Your task to perform on an android device: toggle priority inbox in the gmail app Image 0: 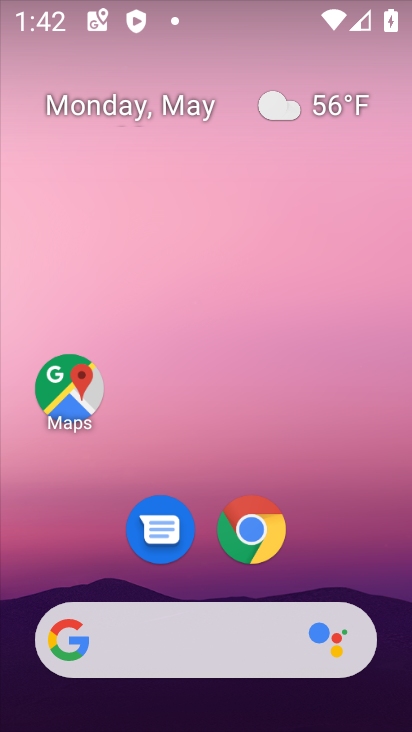
Step 0: drag from (331, 554) to (405, 136)
Your task to perform on an android device: toggle priority inbox in the gmail app Image 1: 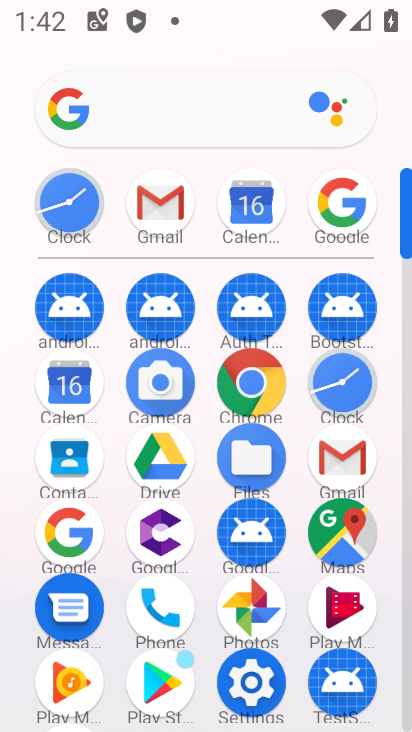
Step 1: click (340, 458)
Your task to perform on an android device: toggle priority inbox in the gmail app Image 2: 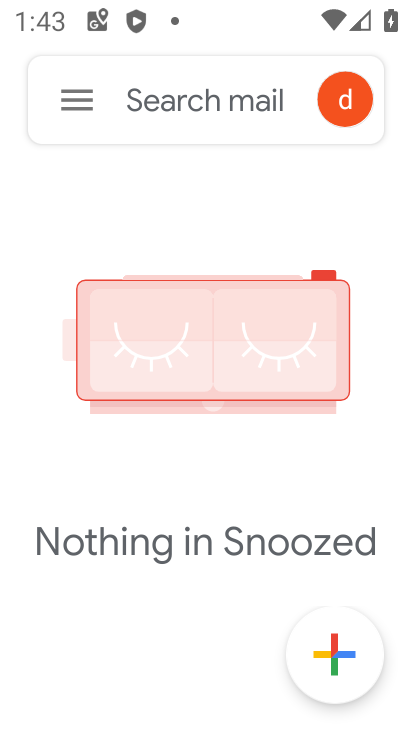
Step 2: click (75, 111)
Your task to perform on an android device: toggle priority inbox in the gmail app Image 3: 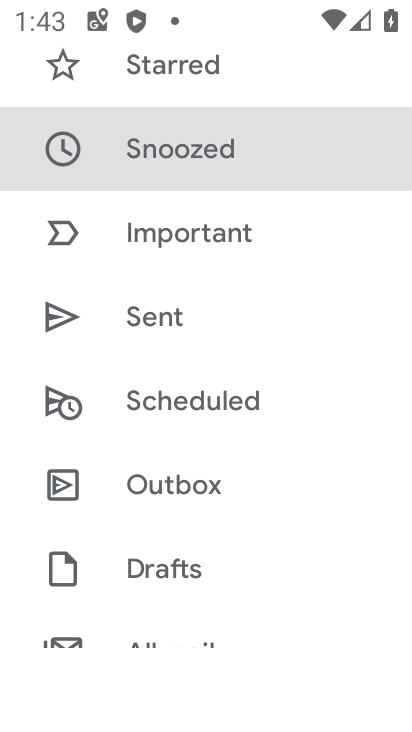
Step 3: drag from (220, 608) to (324, 162)
Your task to perform on an android device: toggle priority inbox in the gmail app Image 4: 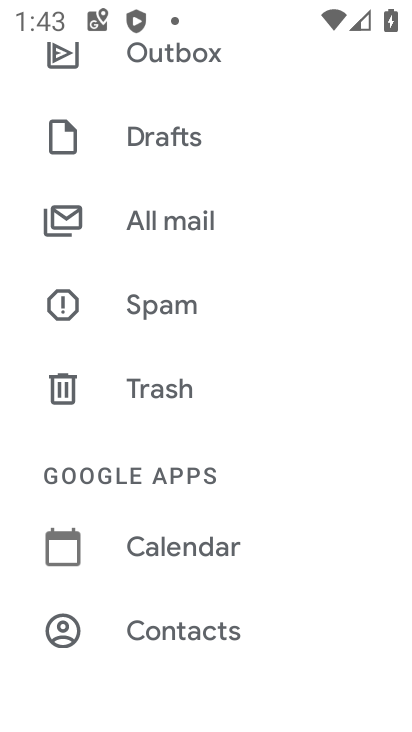
Step 4: drag from (146, 646) to (144, 353)
Your task to perform on an android device: toggle priority inbox in the gmail app Image 5: 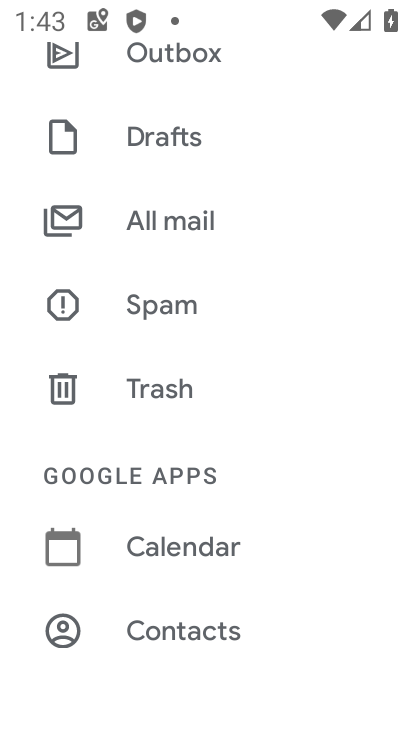
Step 5: drag from (221, 566) to (304, 216)
Your task to perform on an android device: toggle priority inbox in the gmail app Image 6: 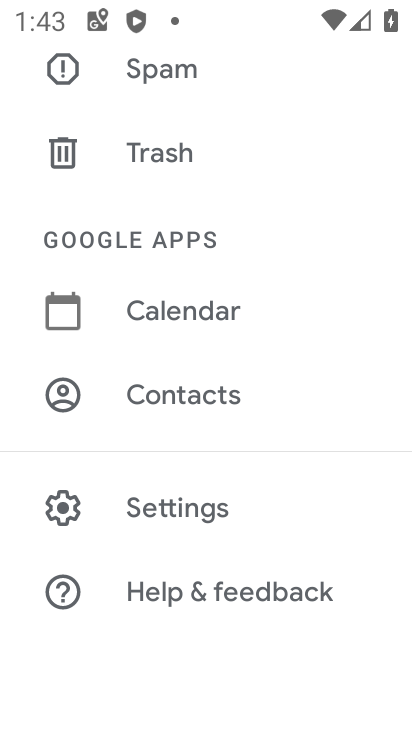
Step 6: click (188, 494)
Your task to perform on an android device: toggle priority inbox in the gmail app Image 7: 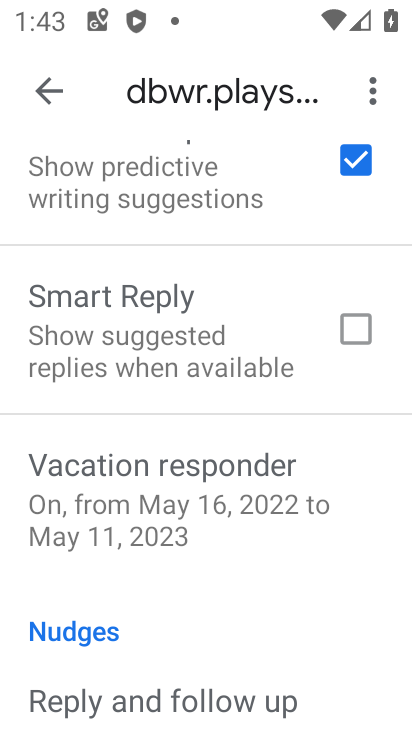
Step 7: drag from (173, 386) to (220, 621)
Your task to perform on an android device: toggle priority inbox in the gmail app Image 8: 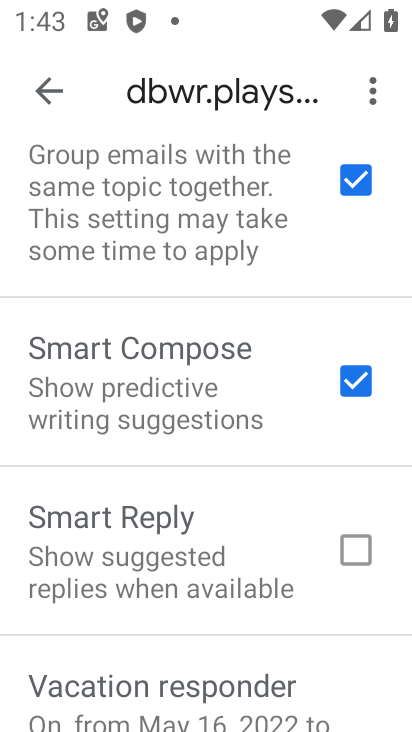
Step 8: drag from (200, 334) to (216, 554)
Your task to perform on an android device: toggle priority inbox in the gmail app Image 9: 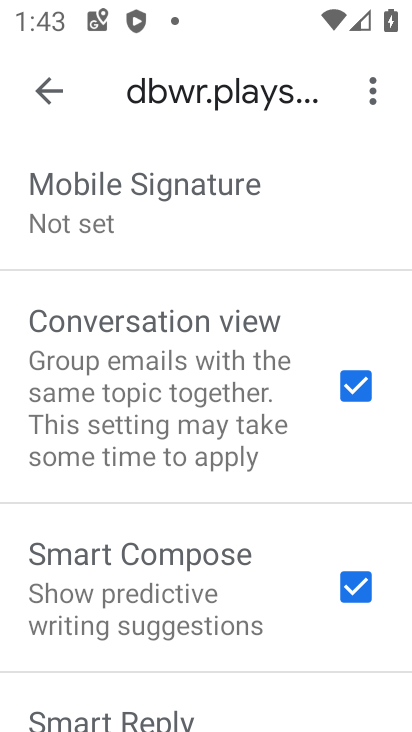
Step 9: drag from (225, 398) to (239, 541)
Your task to perform on an android device: toggle priority inbox in the gmail app Image 10: 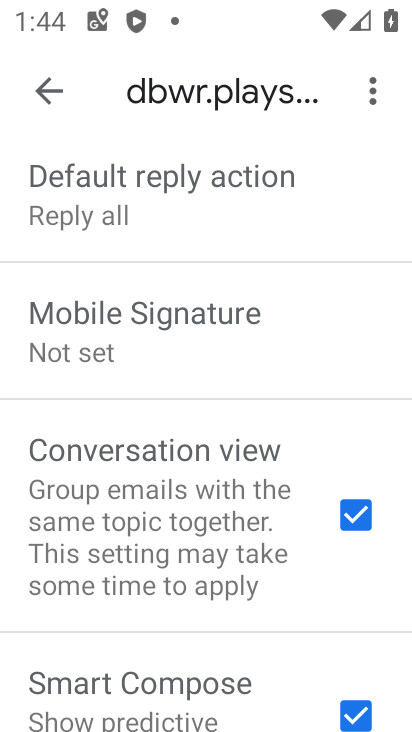
Step 10: drag from (168, 292) to (225, 494)
Your task to perform on an android device: toggle priority inbox in the gmail app Image 11: 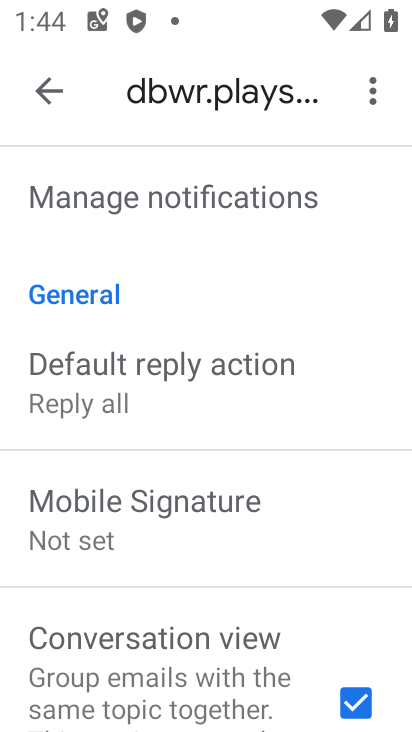
Step 11: drag from (210, 349) to (229, 464)
Your task to perform on an android device: toggle priority inbox in the gmail app Image 12: 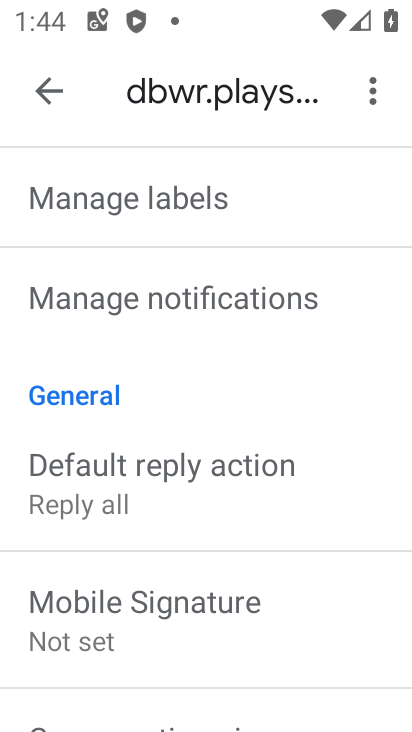
Step 12: drag from (212, 295) to (220, 402)
Your task to perform on an android device: toggle priority inbox in the gmail app Image 13: 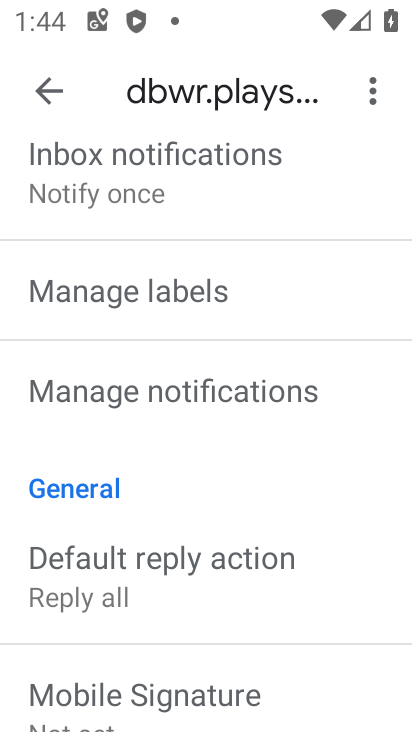
Step 13: drag from (188, 268) to (210, 471)
Your task to perform on an android device: toggle priority inbox in the gmail app Image 14: 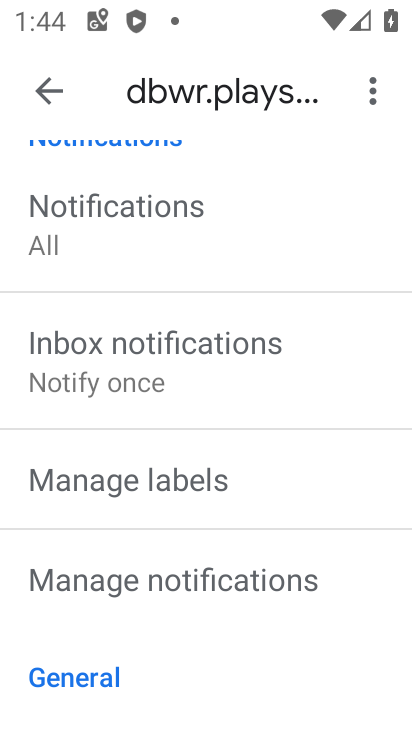
Step 14: drag from (179, 287) to (201, 490)
Your task to perform on an android device: toggle priority inbox in the gmail app Image 15: 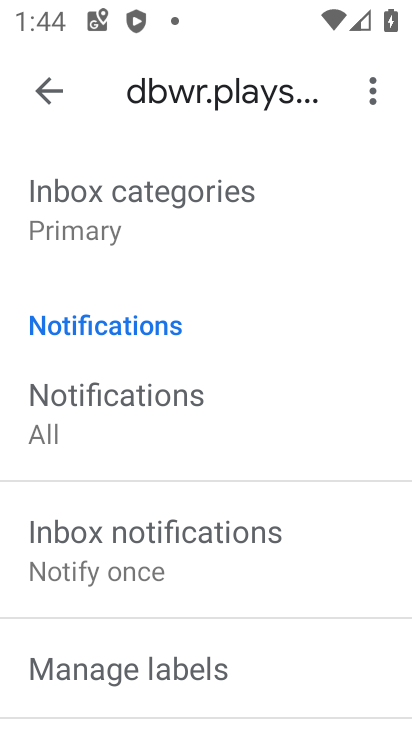
Step 15: drag from (183, 239) to (221, 526)
Your task to perform on an android device: toggle priority inbox in the gmail app Image 16: 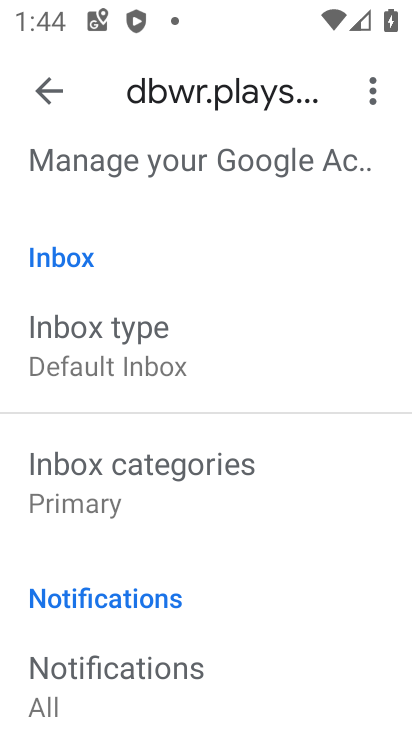
Step 16: click (175, 348)
Your task to perform on an android device: toggle priority inbox in the gmail app Image 17: 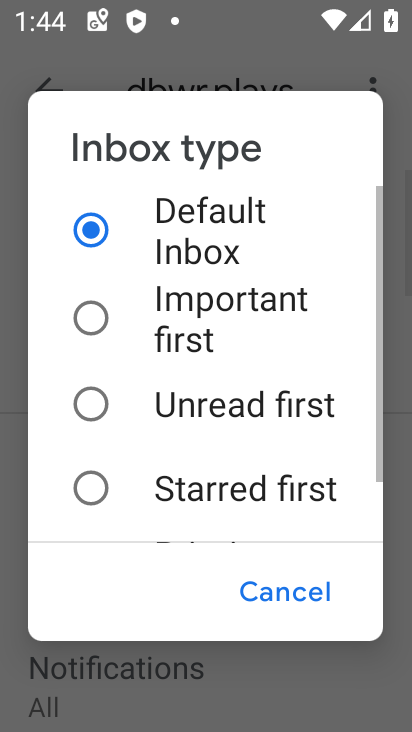
Step 17: drag from (148, 478) to (167, 275)
Your task to perform on an android device: toggle priority inbox in the gmail app Image 18: 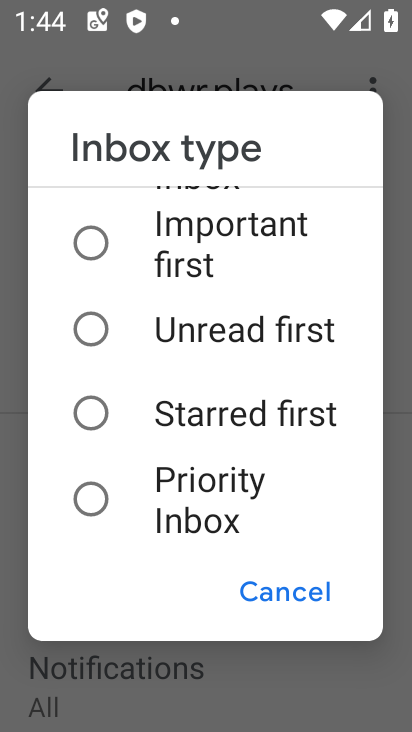
Step 18: click (175, 515)
Your task to perform on an android device: toggle priority inbox in the gmail app Image 19: 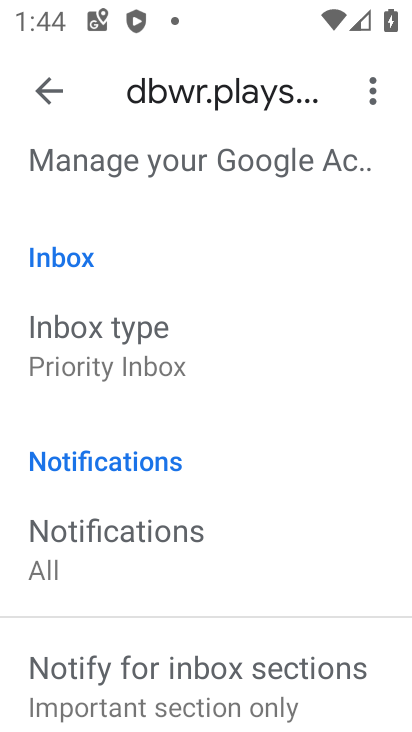
Step 19: task complete